Your task to perform on an android device: change the clock display to digital Image 0: 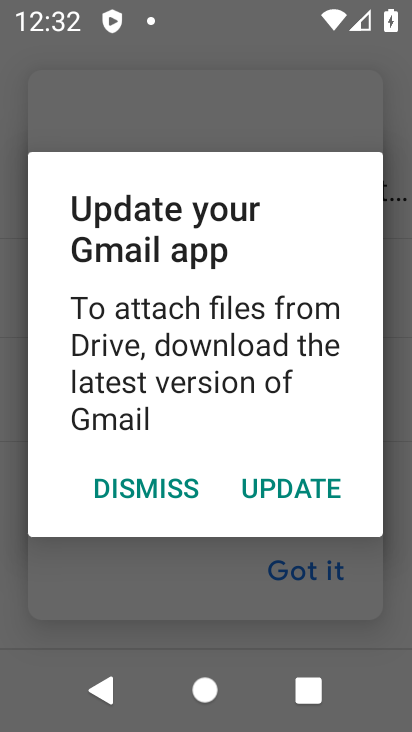
Step 0: press home button
Your task to perform on an android device: change the clock display to digital Image 1: 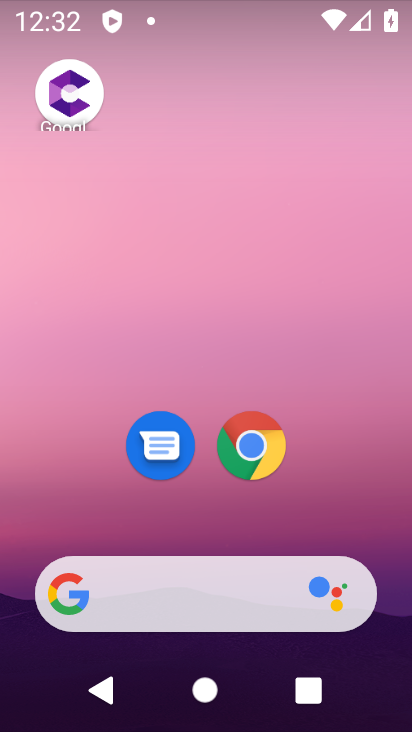
Step 1: drag from (397, 585) to (279, 26)
Your task to perform on an android device: change the clock display to digital Image 2: 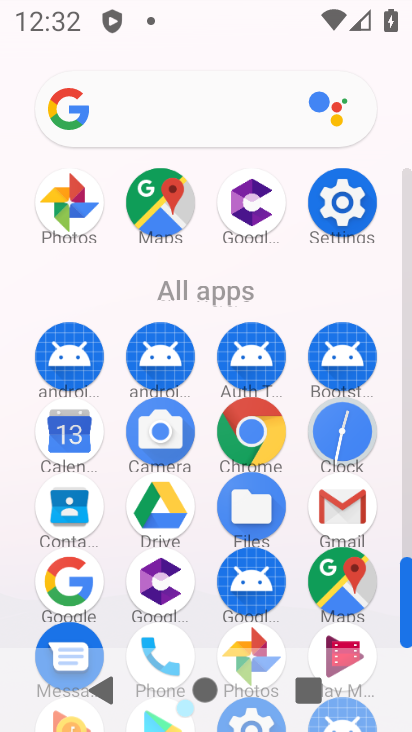
Step 2: click (338, 430)
Your task to perform on an android device: change the clock display to digital Image 3: 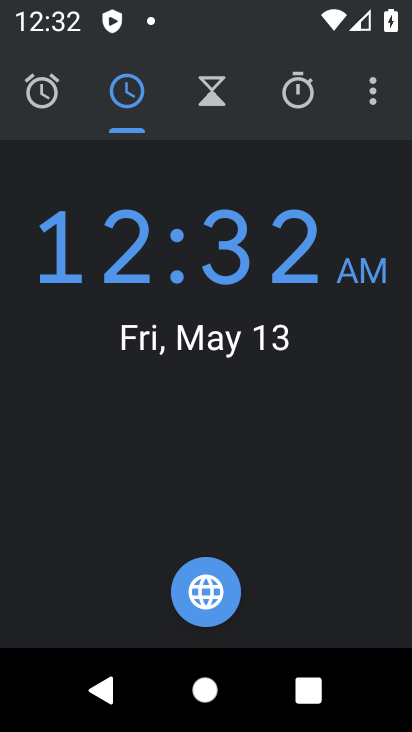
Step 3: click (375, 92)
Your task to perform on an android device: change the clock display to digital Image 4: 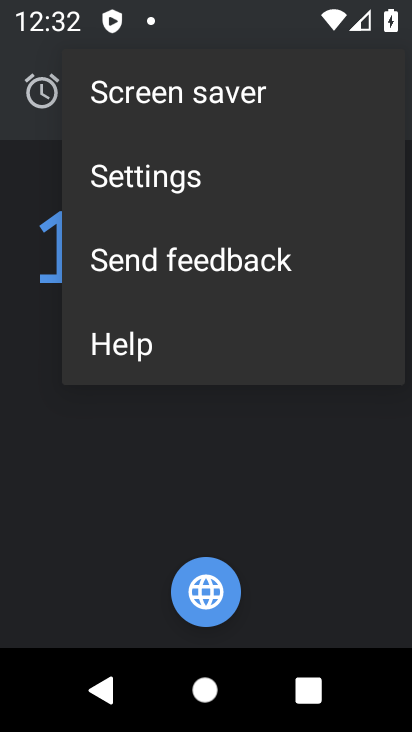
Step 4: click (113, 174)
Your task to perform on an android device: change the clock display to digital Image 5: 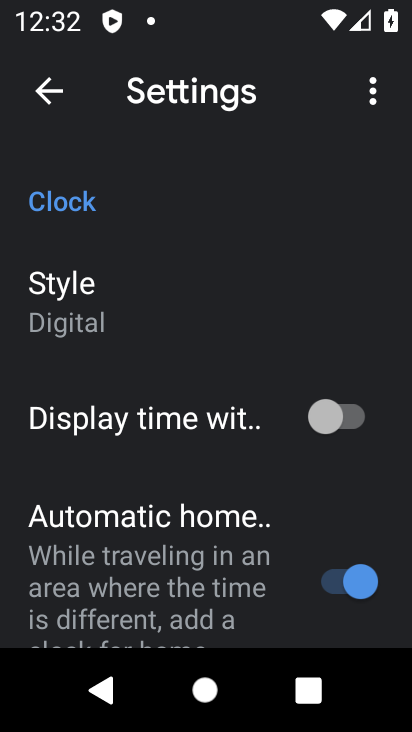
Step 5: click (89, 301)
Your task to perform on an android device: change the clock display to digital Image 6: 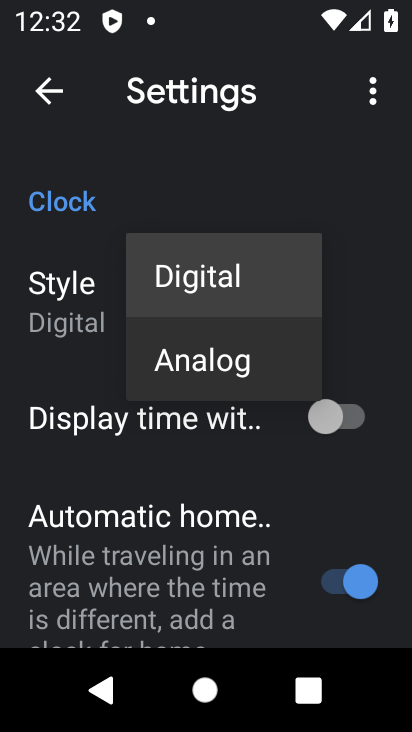
Step 6: task complete